Your task to perform on an android device: Open Google Chrome and click the shortcut for Amazon.com Image 0: 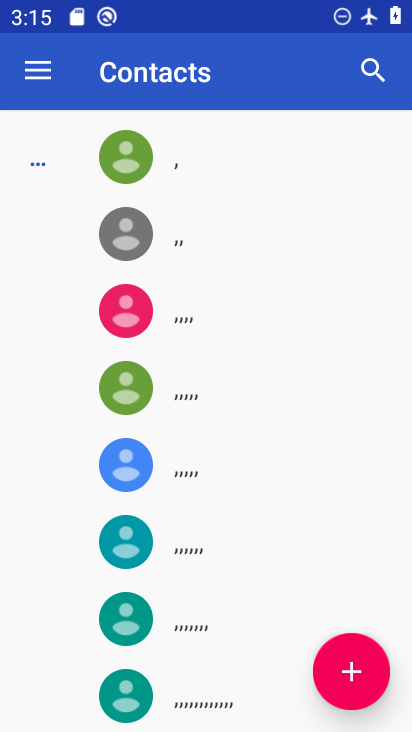
Step 0: press home button
Your task to perform on an android device: Open Google Chrome and click the shortcut for Amazon.com Image 1: 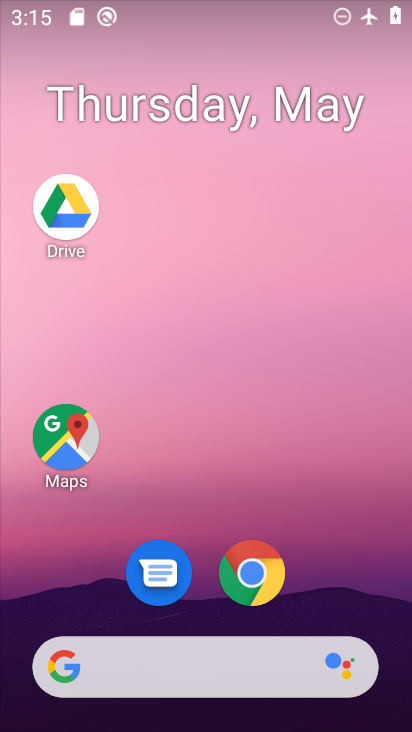
Step 1: click (253, 567)
Your task to perform on an android device: Open Google Chrome and click the shortcut for Amazon.com Image 2: 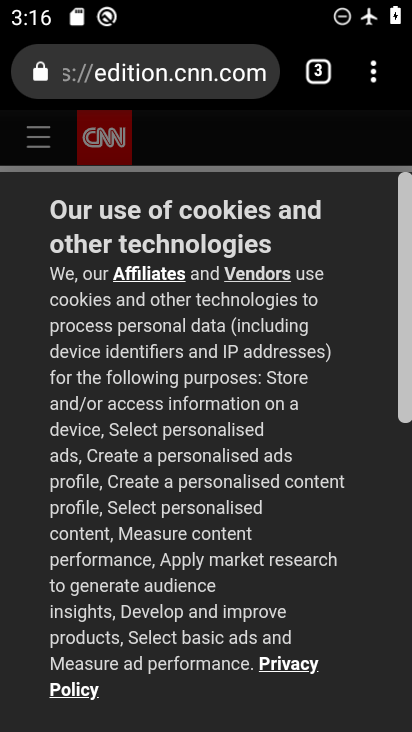
Step 2: click (369, 74)
Your task to perform on an android device: Open Google Chrome and click the shortcut for Amazon.com Image 3: 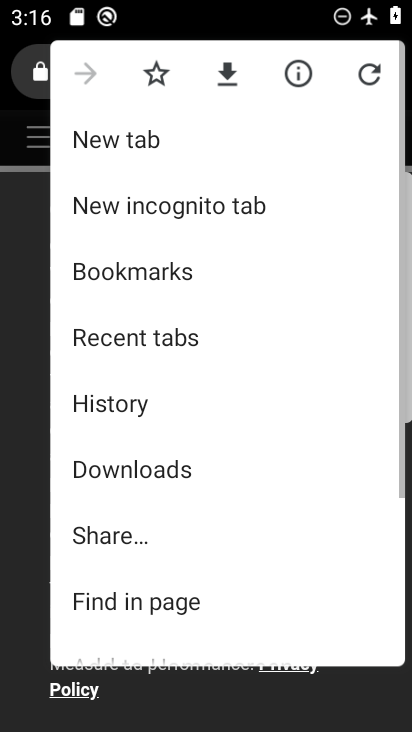
Step 3: click (377, 71)
Your task to perform on an android device: Open Google Chrome and click the shortcut for Amazon.com Image 4: 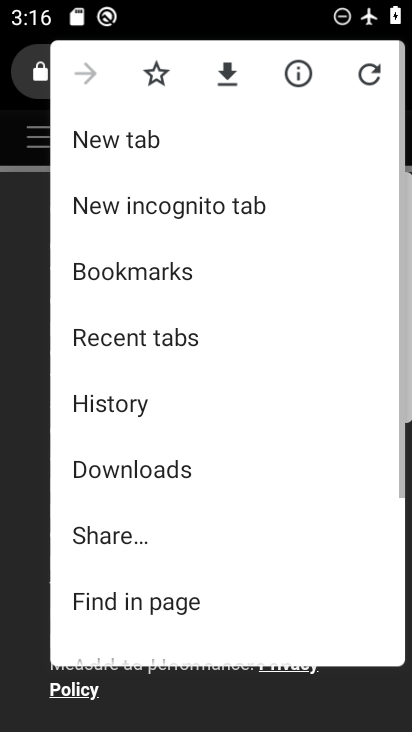
Step 4: click (373, 79)
Your task to perform on an android device: Open Google Chrome and click the shortcut for Amazon.com Image 5: 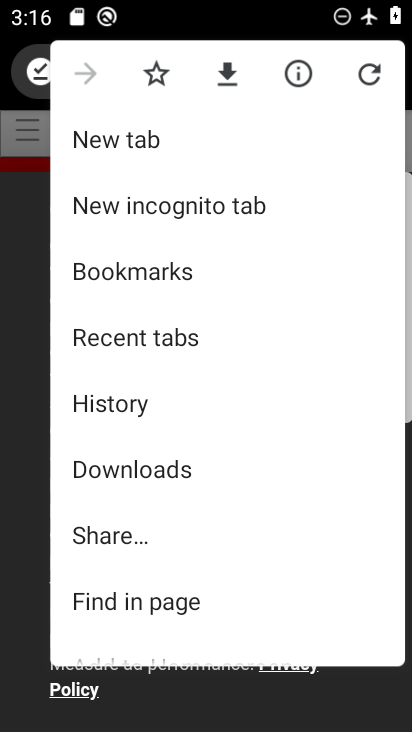
Step 5: click (118, 133)
Your task to perform on an android device: Open Google Chrome and click the shortcut for Amazon.com Image 6: 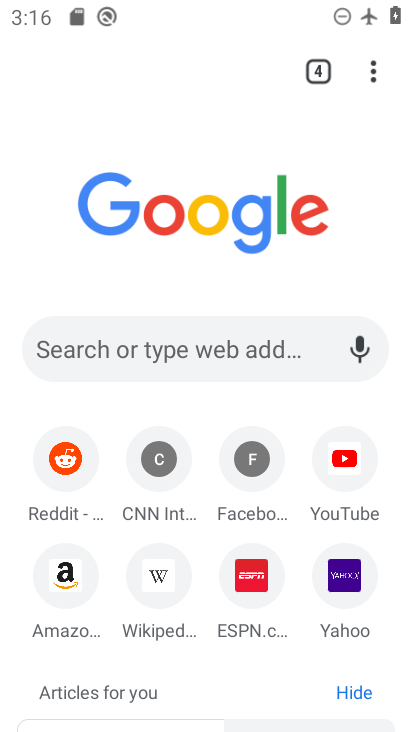
Step 6: click (68, 572)
Your task to perform on an android device: Open Google Chrome and click the shortcut for Amazon.com Image 7: 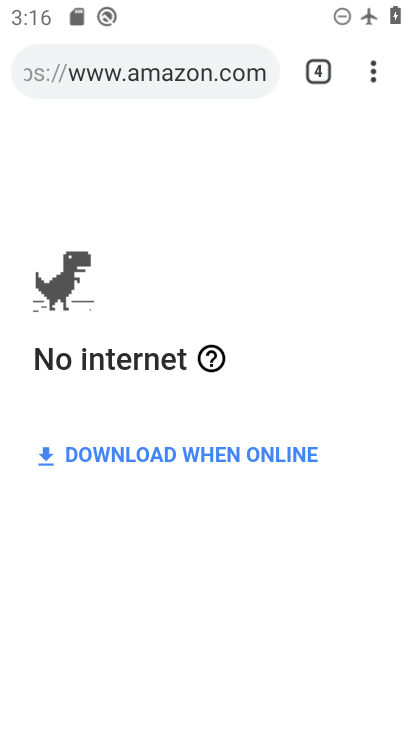
Step 7: task complete